Your task to perform on an android device: find which apps use the phone's location Image 0: 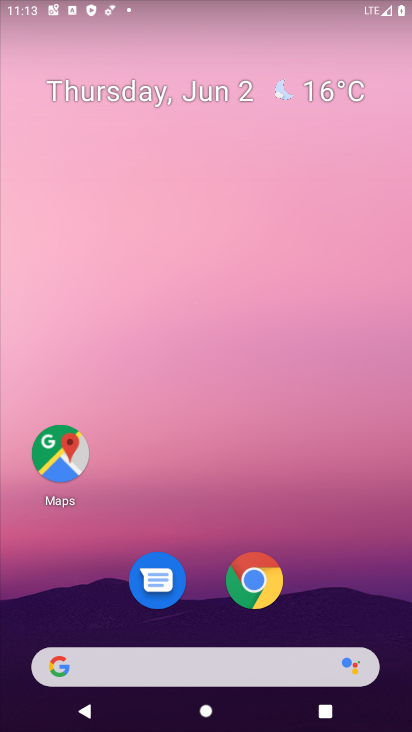
Step 0: drag from (200, 529) to (196, 183)
Your task to perform on an android device: find which apps use the phone's location Image 1: 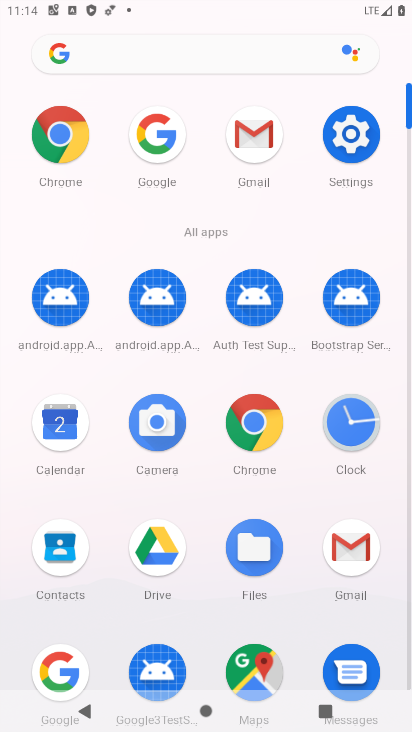
Step 1: click (351, 169)
Your task to perform on an android device: find which apps use the phone's location Image 2: 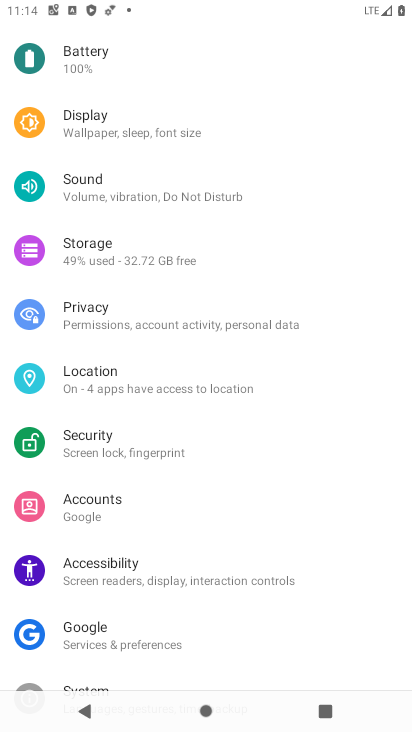
Step 2: drag from (129, 433) to (150, 259)
Your task to perform on an android device: find which apps use the phone's location Image 3: 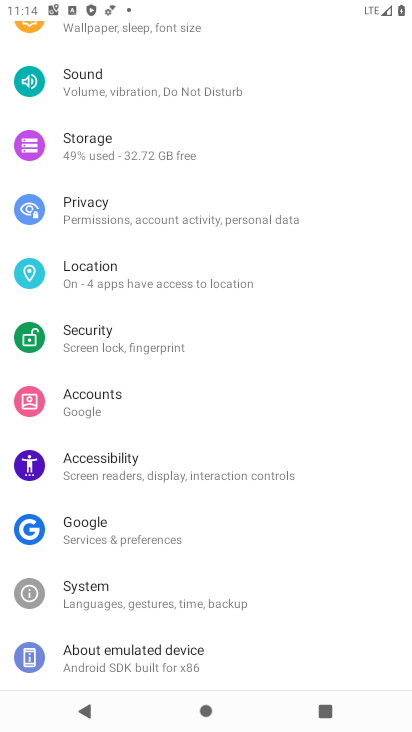
Step 3: click (175, 280)
Your task to perform on an android device: find which apps use the phone's location Image 4: 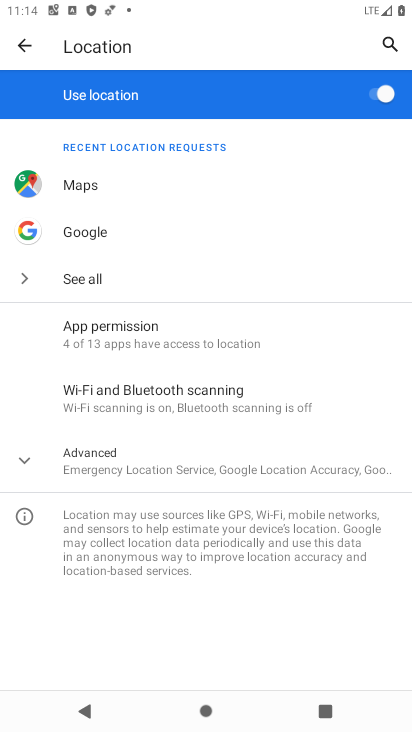
Step 4: click (156, 351)
Your task to perform on an android device: find which apps use the phone's location Image 5: 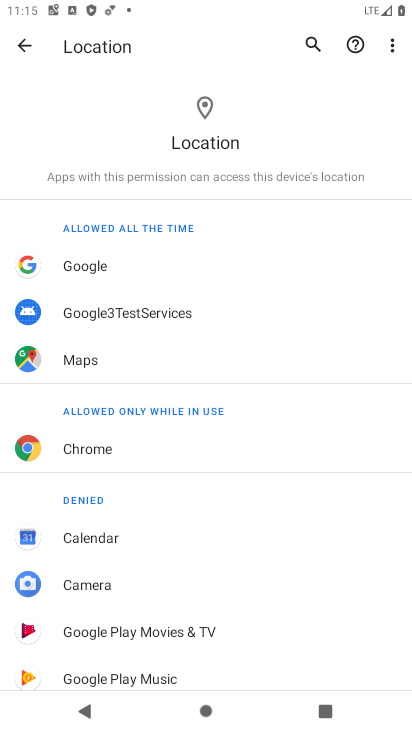
Step 5: task complete